Your task to perform on an android device: uninstall "Google Calendar" Image 0: 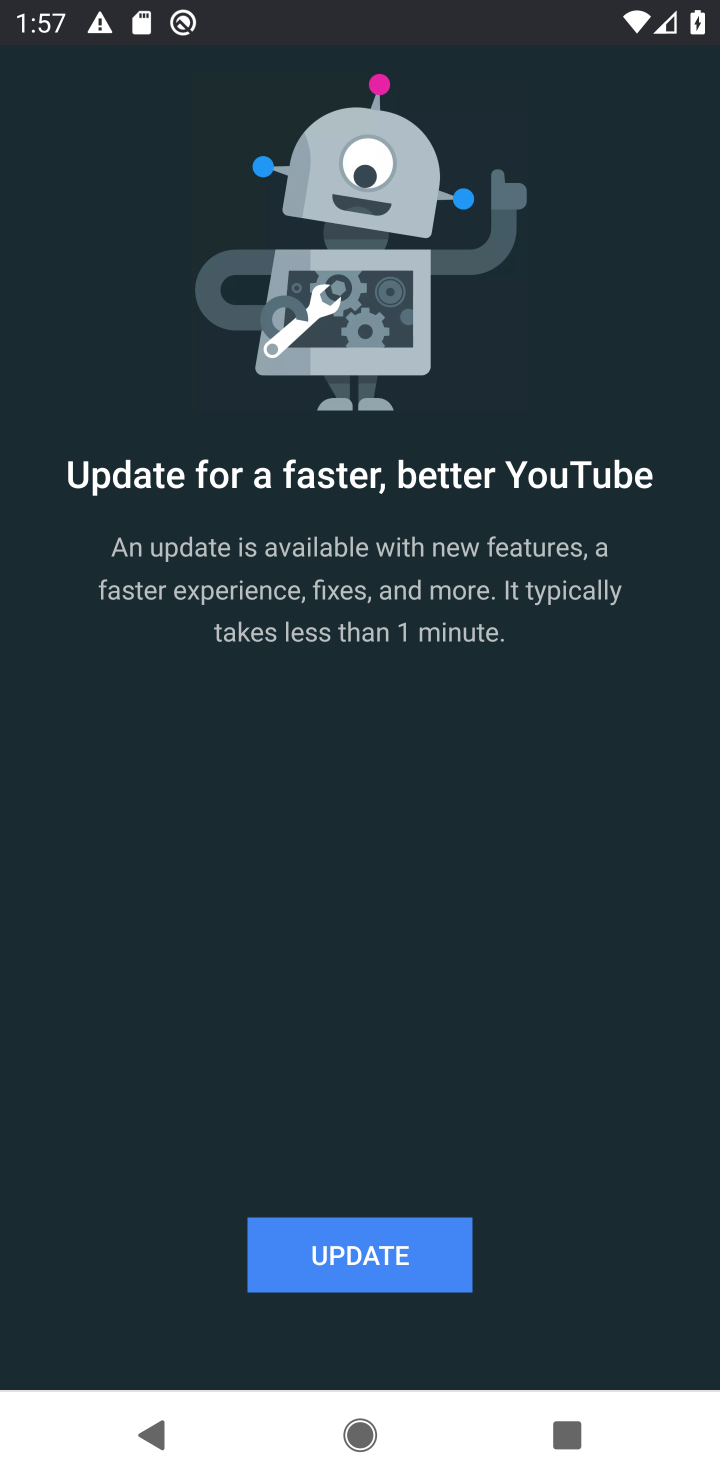
Step 0: press home button
Your task to perform on an android device: uninstall "Google Calendar" Image 1: 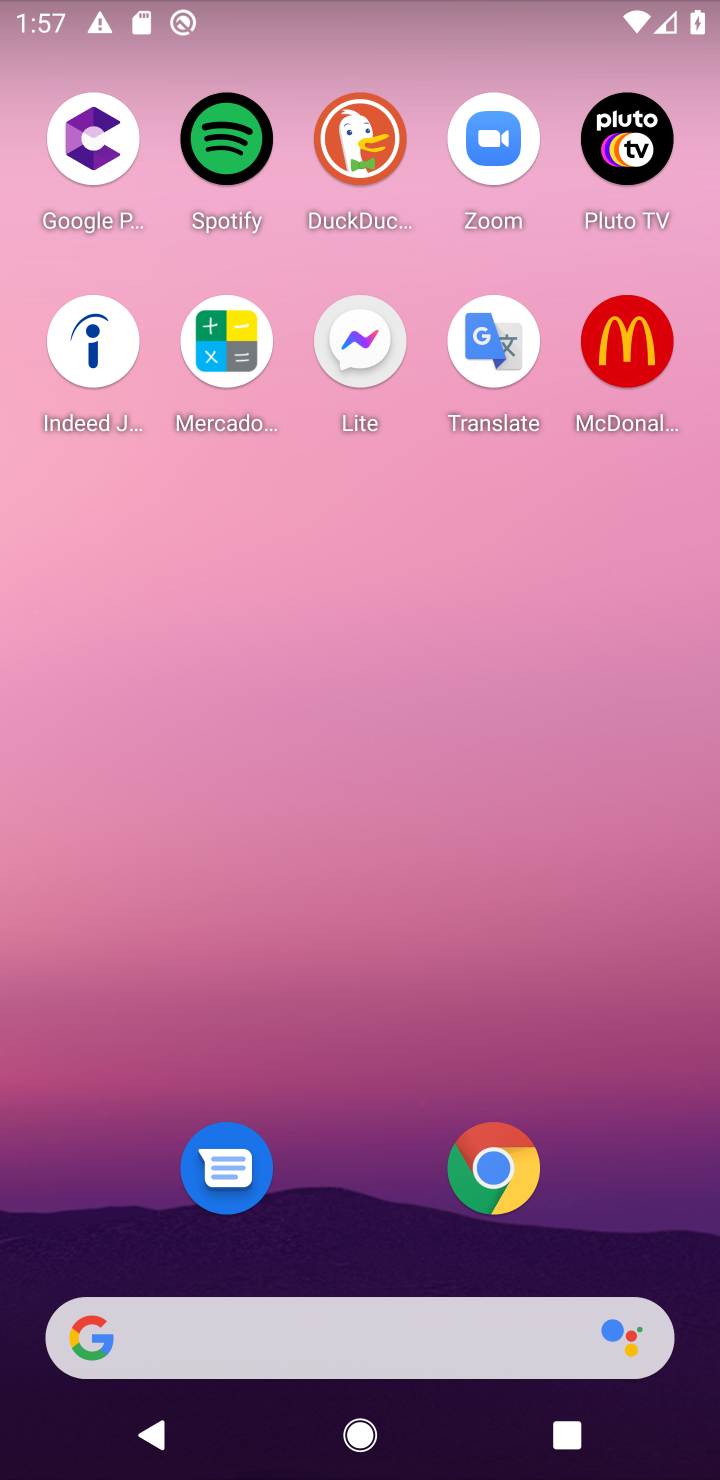
Step 1: drag from (378, 988) to (340, 166)
Your task to perform on an android device: uninstall "Google Calendar" Image 2: 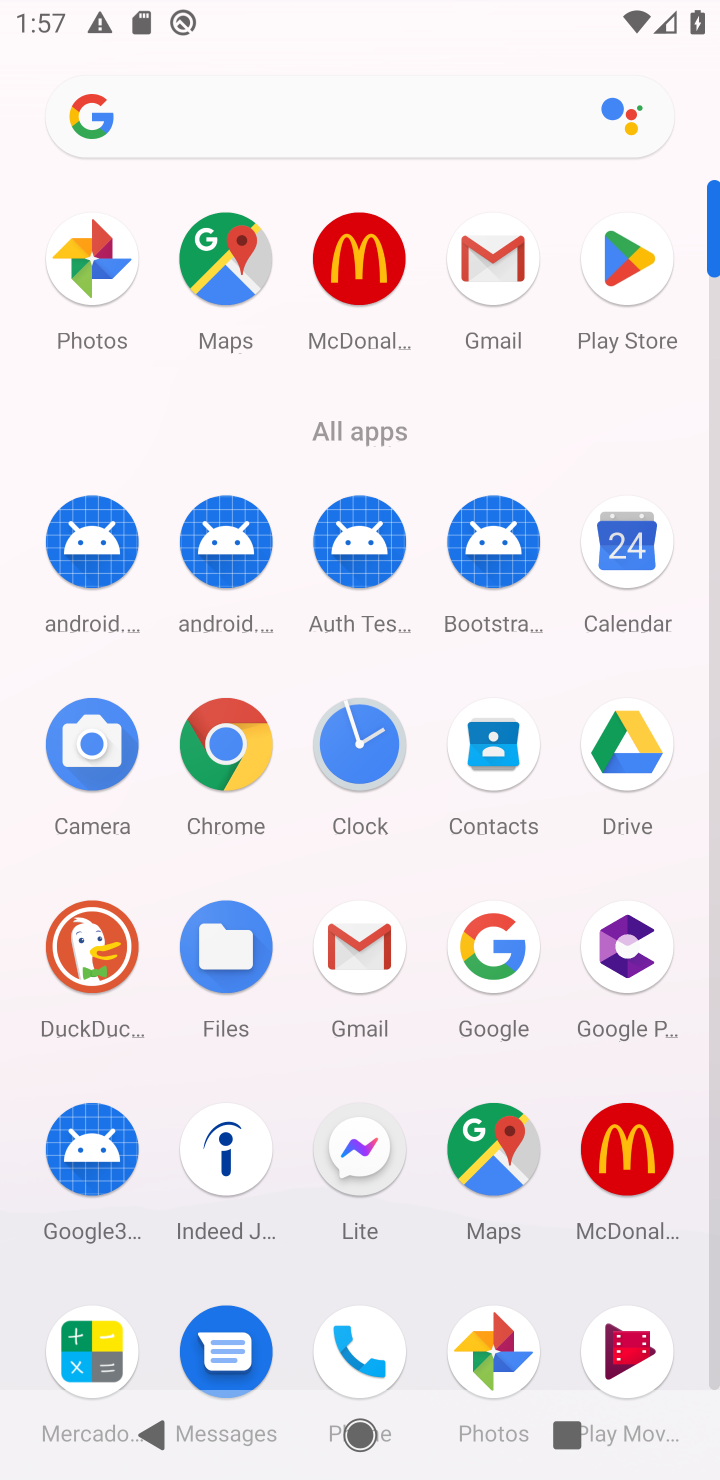
Step 2: drag from (288, 1079) to (292, 458)
Your task to perform on an android device: uninstall "Google Calendar" Image 3: 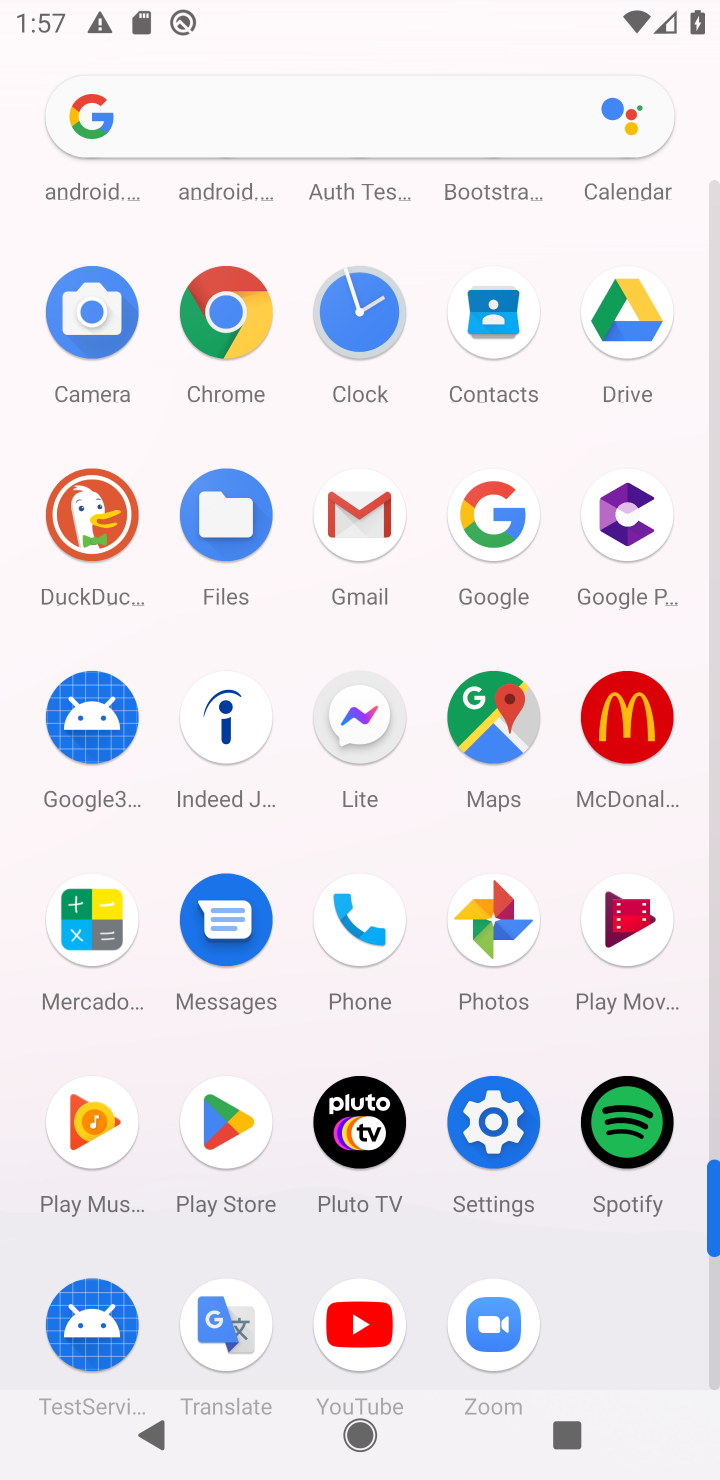
Step 3: click (235, 1113)
Your task to perform on an android device: uninstall "Google Calendar" Image 4: 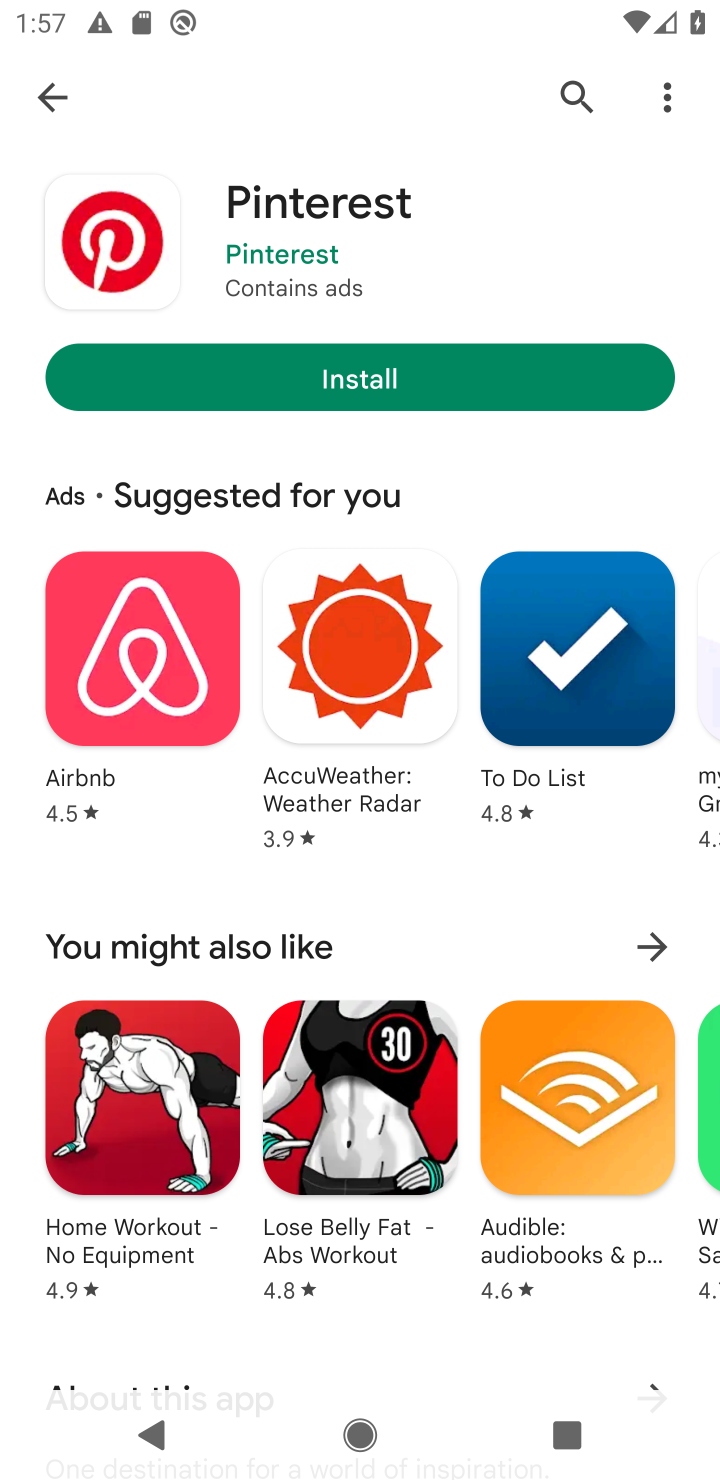
Step 4: click (582, 83)
Your task to perform on an android device: uninstall "Google Calendar" Image 5: 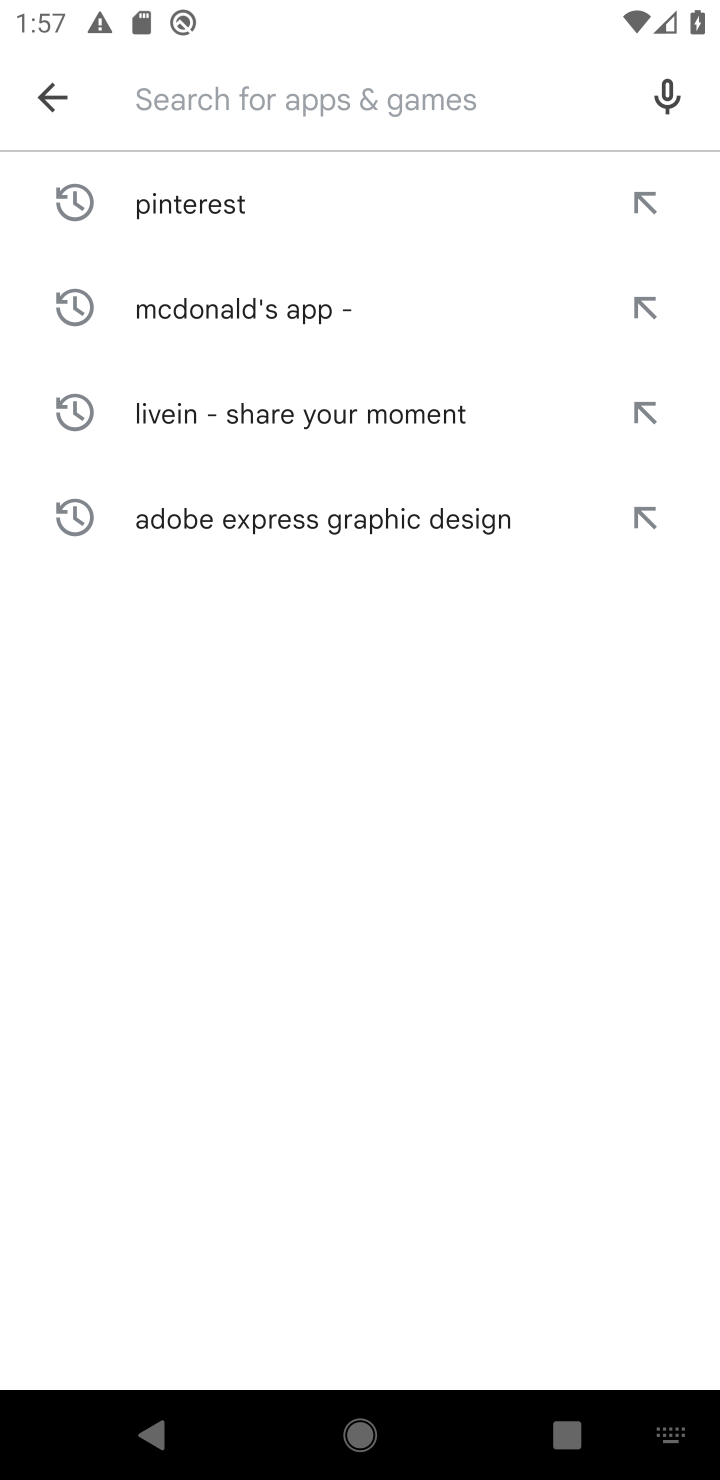
Step 5: type "Google Calendar"
Your task to perform on an android device: uninstall "Google Calendar" Image 6: 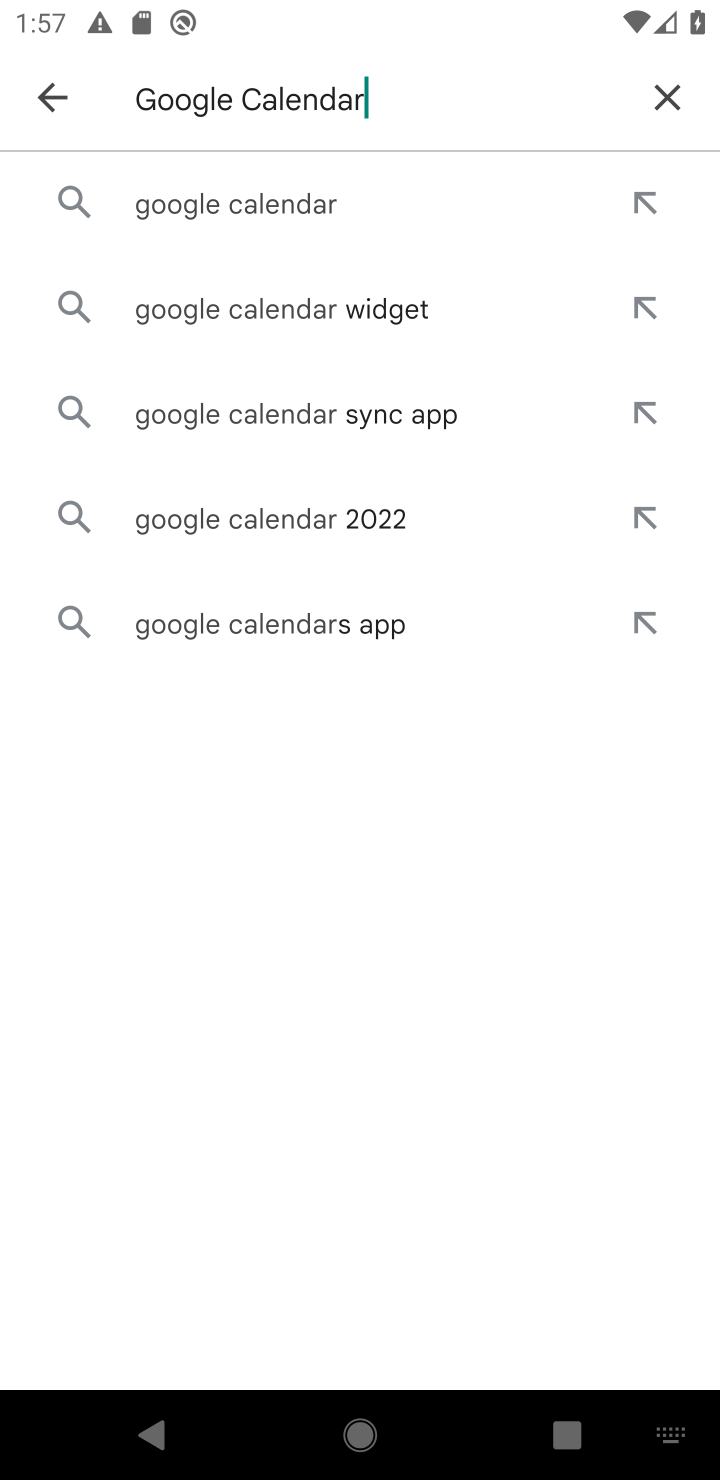
Step 6: click (246, 214)
Your task to perform on an android device: uninstall "Google Calendar" Image 7: 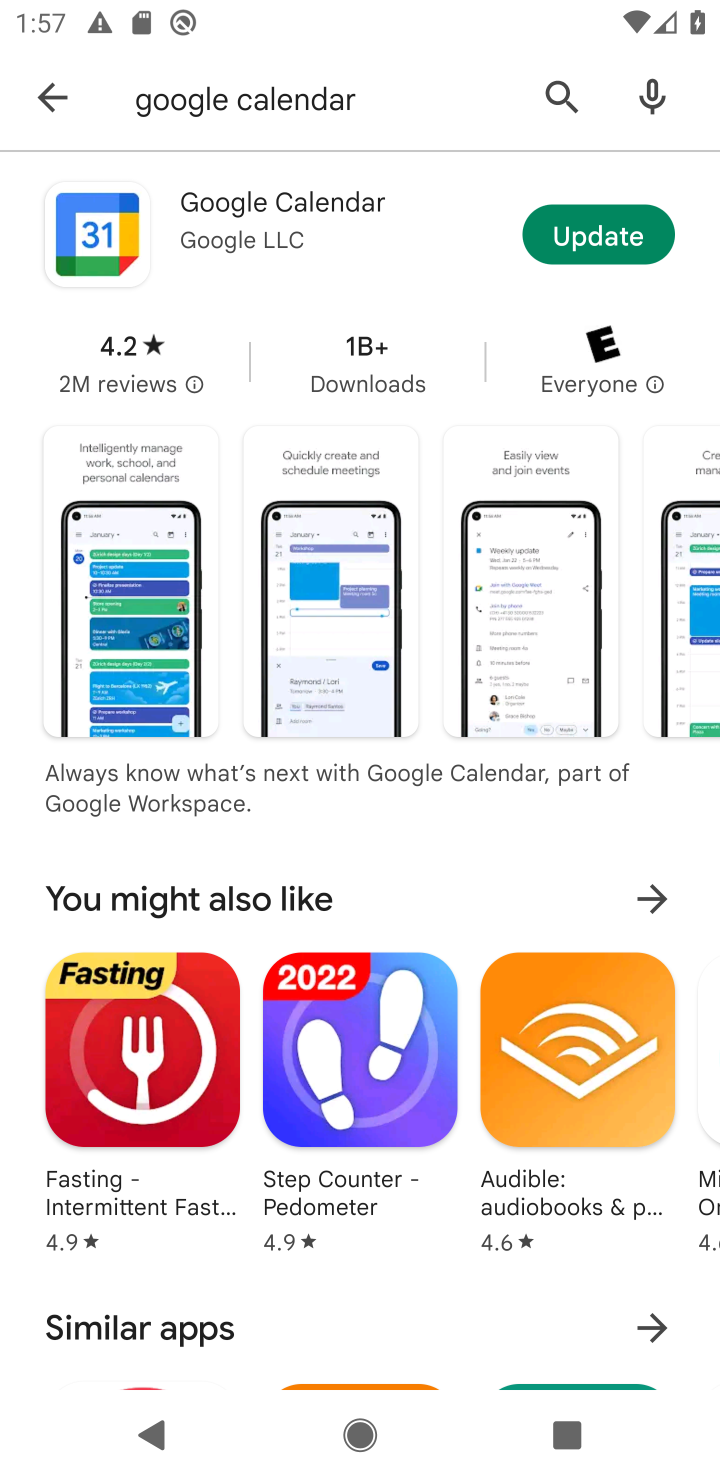
Step 7: click (246, 214)
Your task to perform on an android device: uninstall "Google Calendar" Image 8: 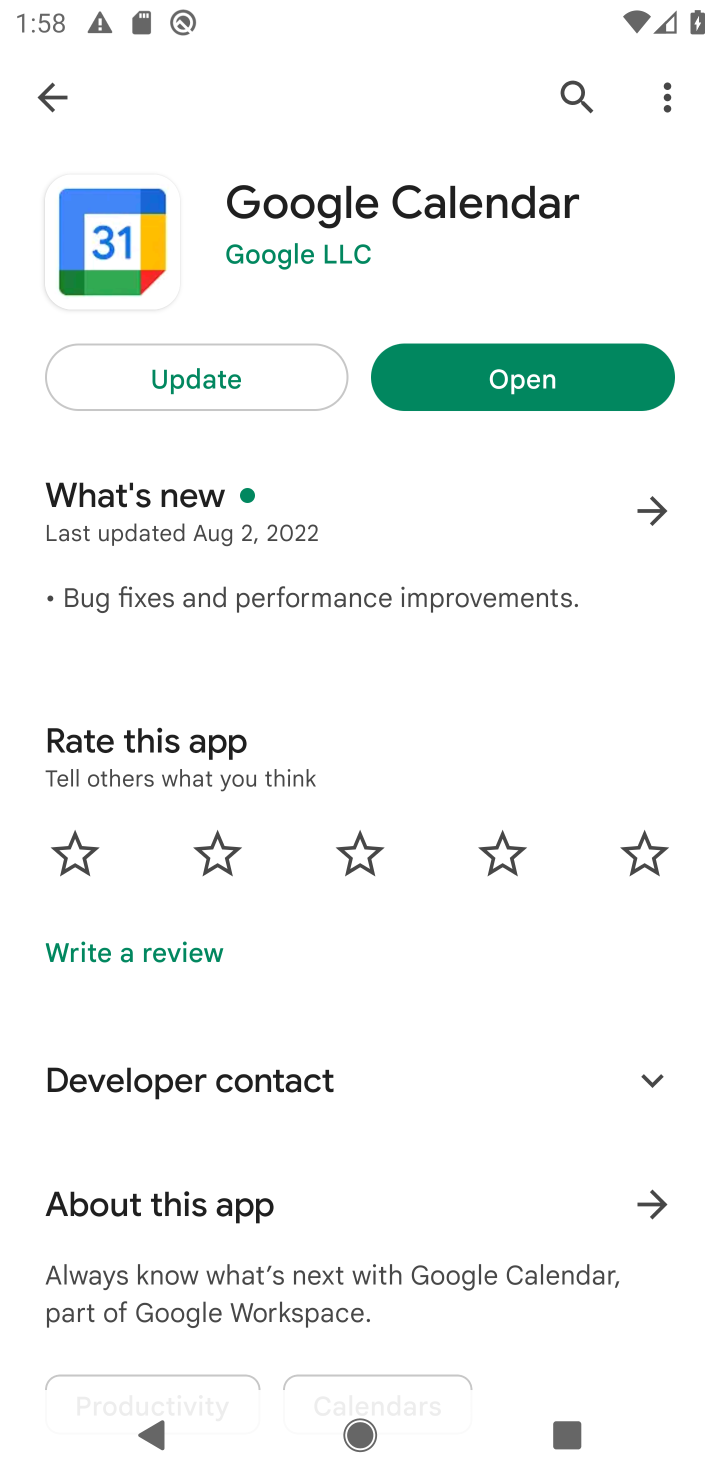
Step 8: click (197, 368)
Your task to perform on an android device: uninstall "Google Calendar" Image 9: 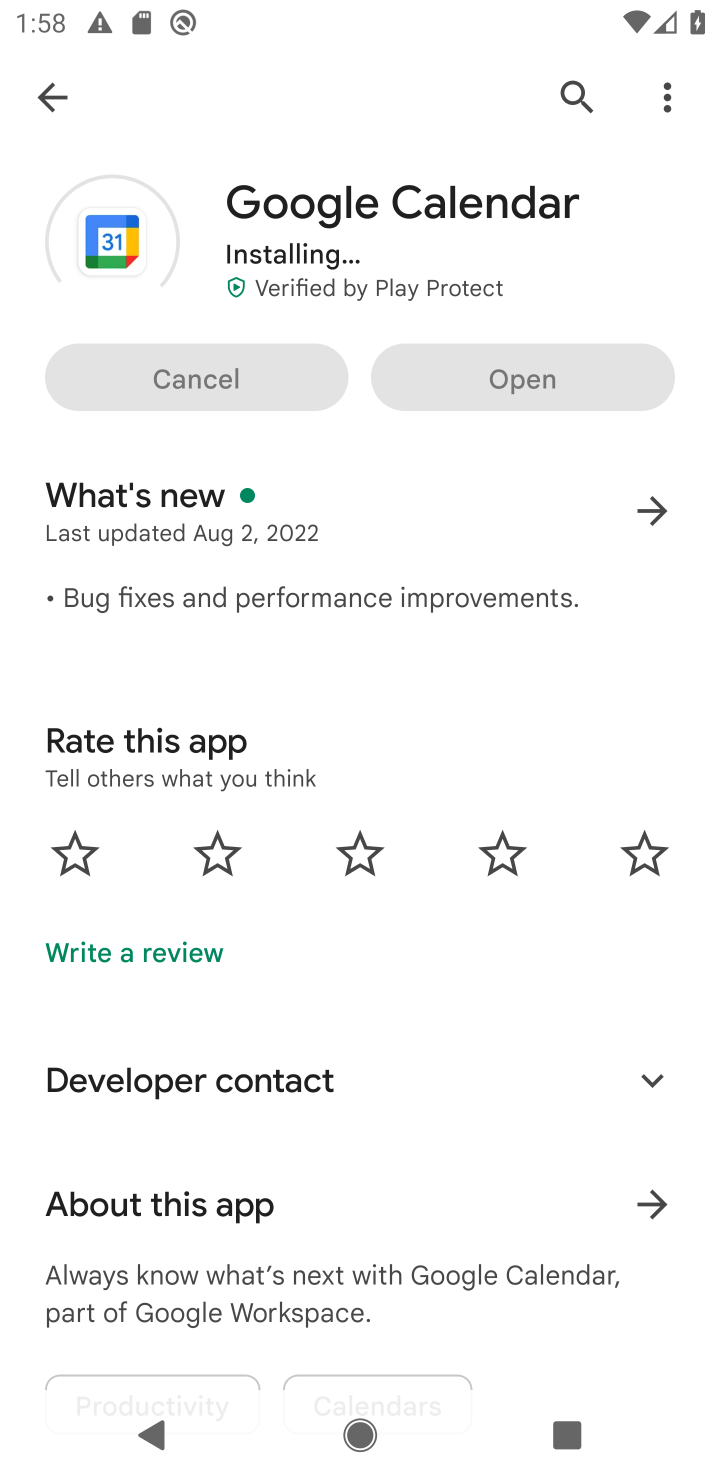
Step 9: click (283, 251)
Your task to perform on an android device: uninstall "Google Calendar" Image 10: 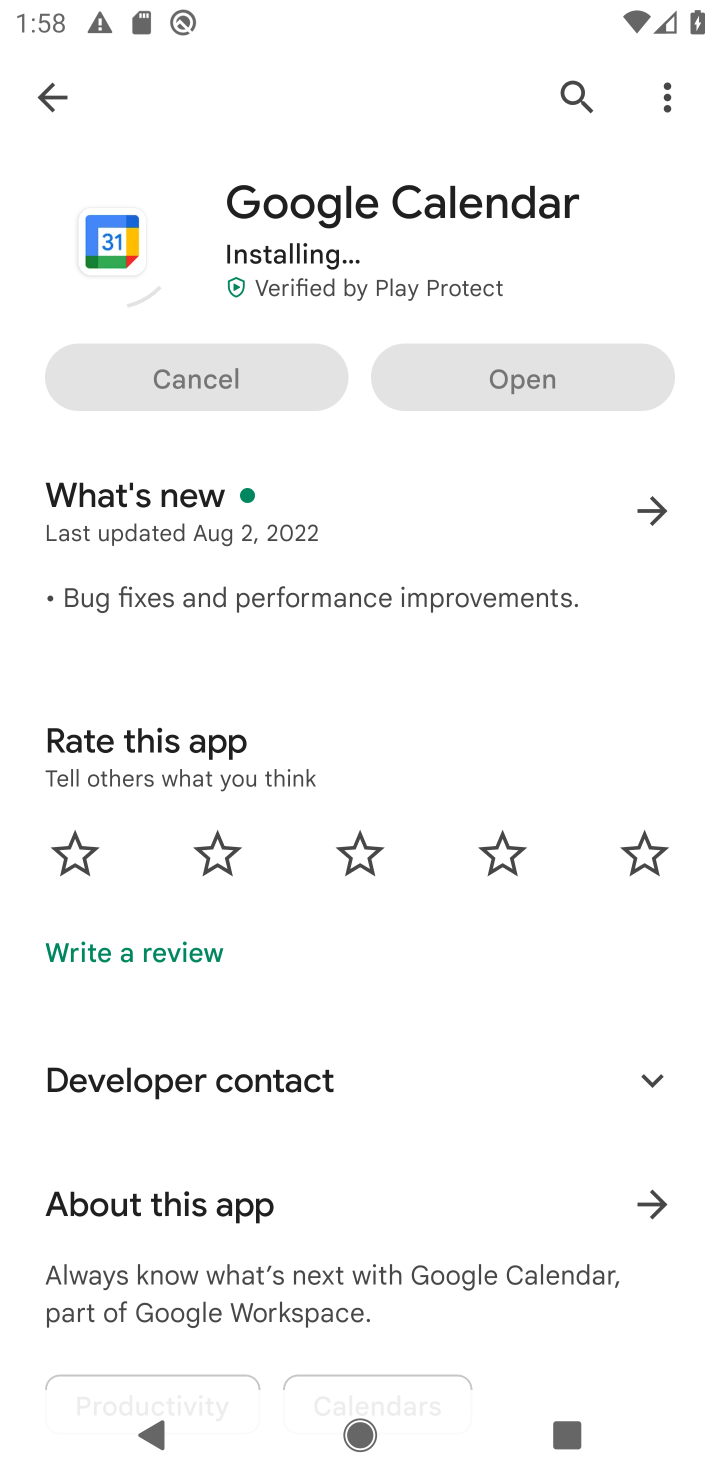
Step 10: press back button
Your task to perform on an android device: uninstall "Google Calendar" Image 11: 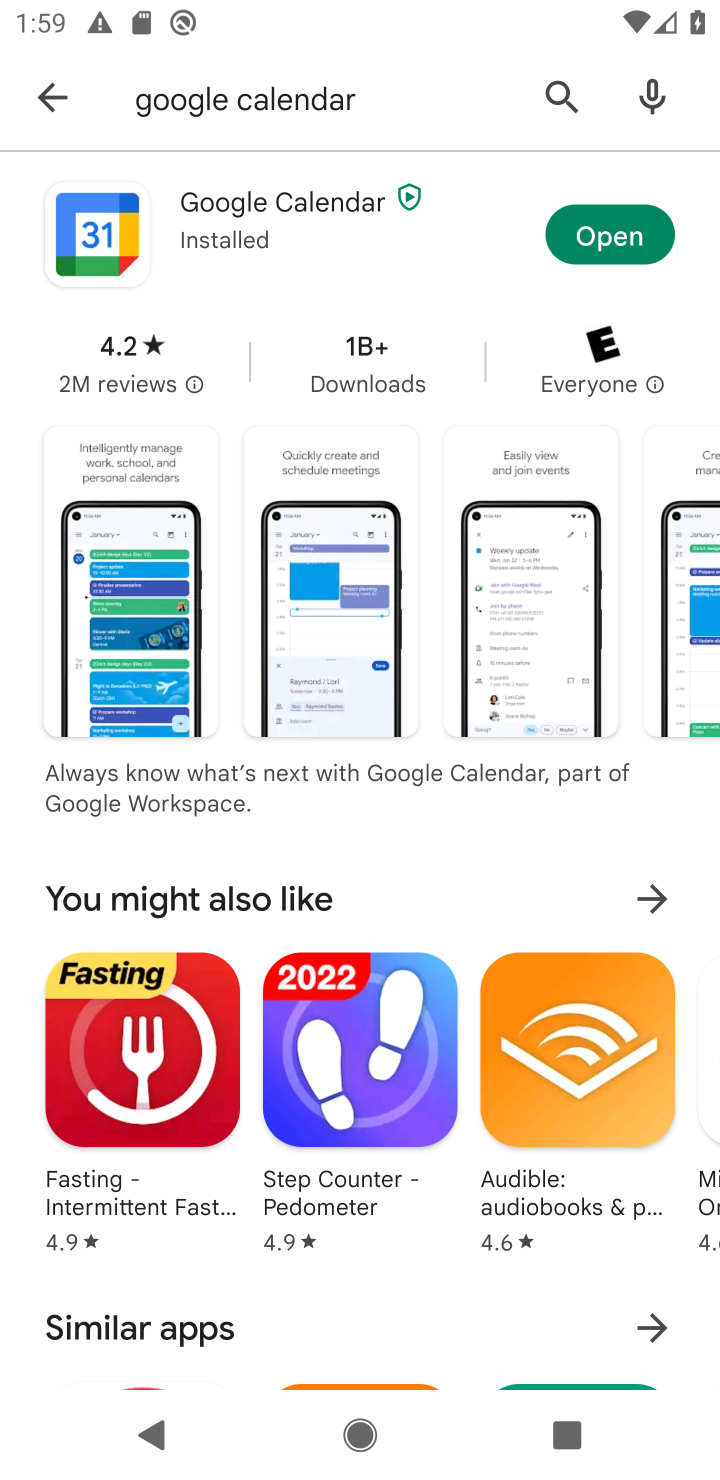
Step 11: click (232, 207)
Your task to perform on an android device: uninstall "Google Calendar" Image 12: 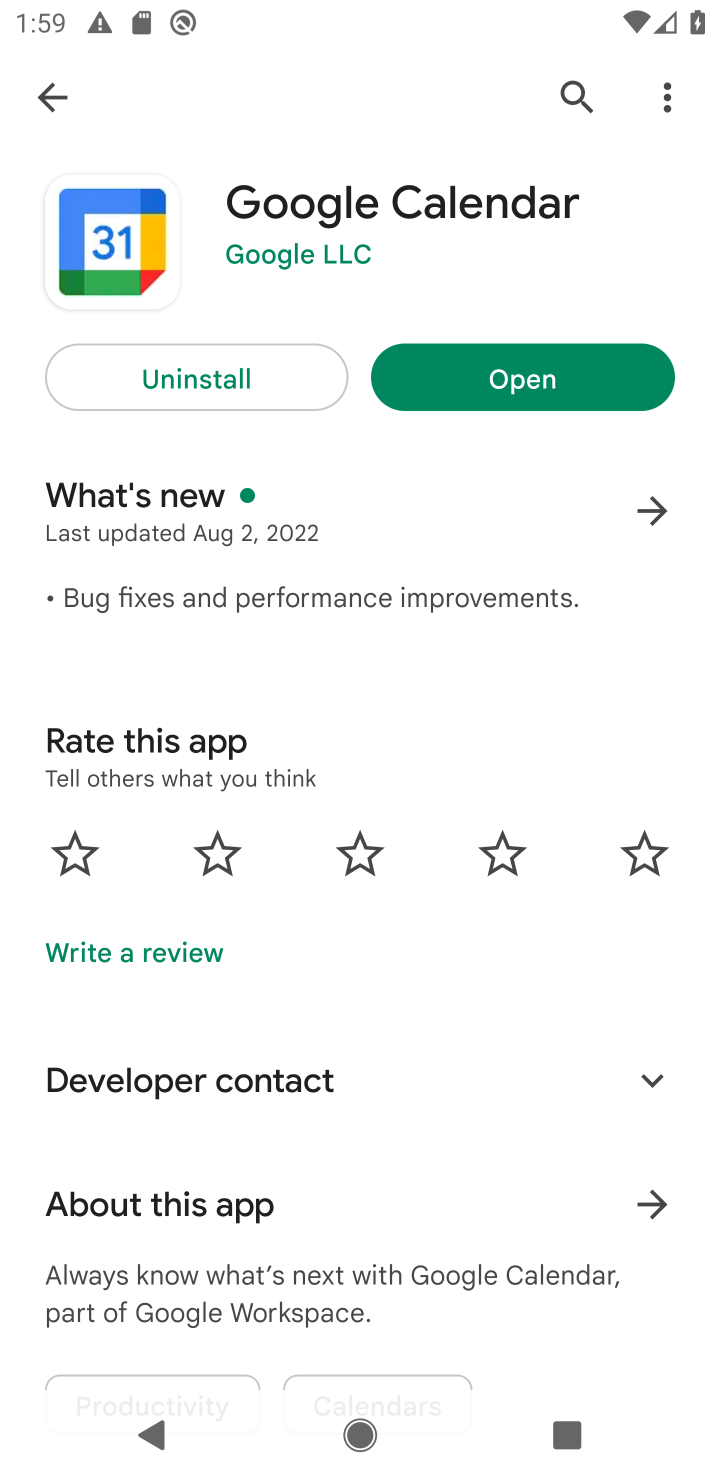
Step 12: click (179, 384)
Your task to perform on an android device: uninstall "Google Calendar" Image 13: 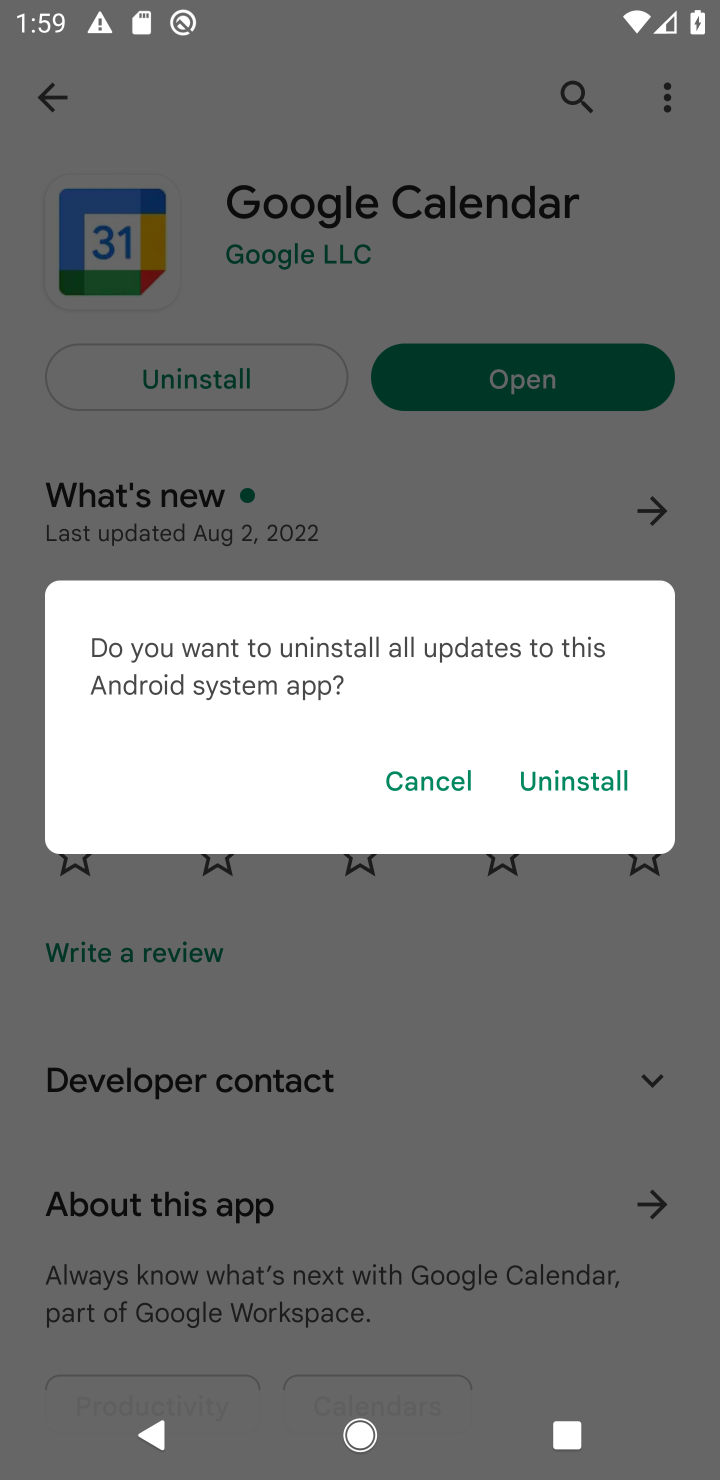
Step 13: click (559, 786)
Your task to perform on an android device: uninstall "Google Calendar" Image 14: 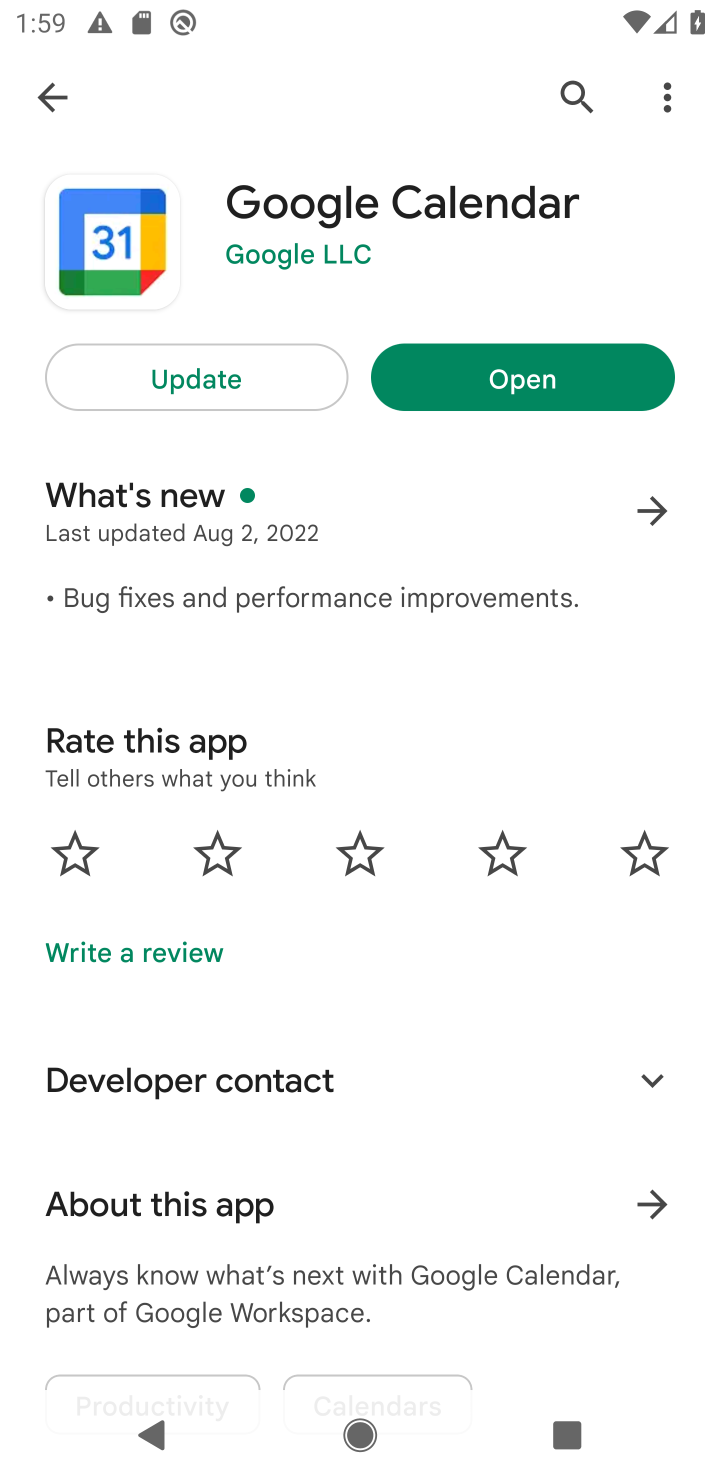
Step 14: task complete